Your task to perform on an android device: toggle translation in the chrome app Image 0: 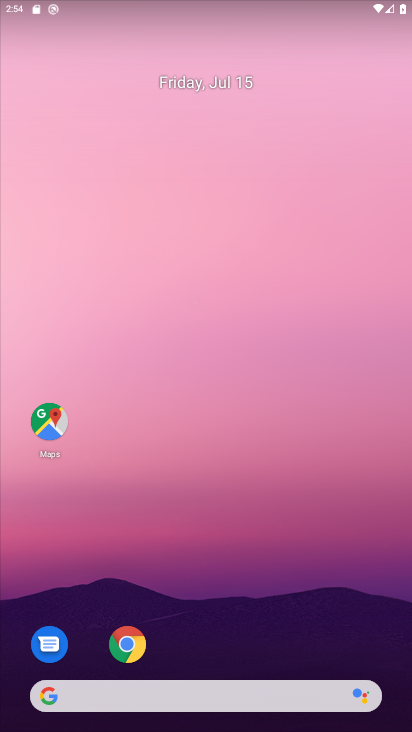
Step 0: drag from (184, 607) to (147, 31)
Your task to perform on an android device: toggle translation in the chrome app Image 1: 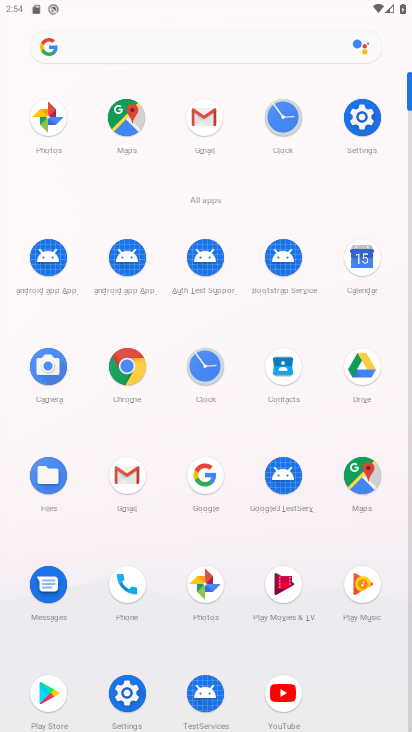
Step 1: click (121, 355)
Your task to perform on an android device: toggle translation in the chrome app Image 2: 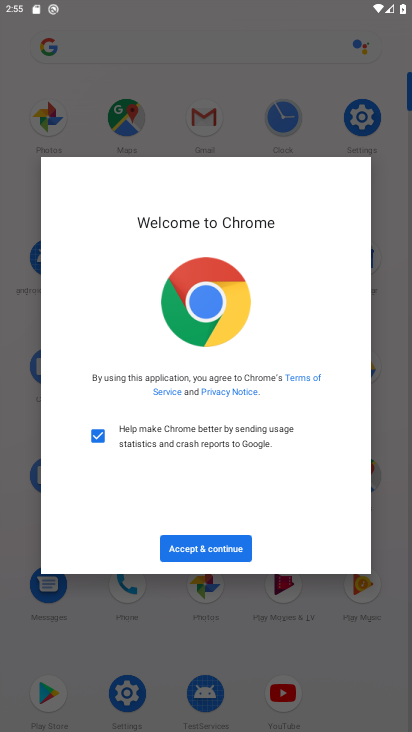
Step 2: click (221, 545)
Your task to perform on an android device: toggle translation in the chrome app Image 3: 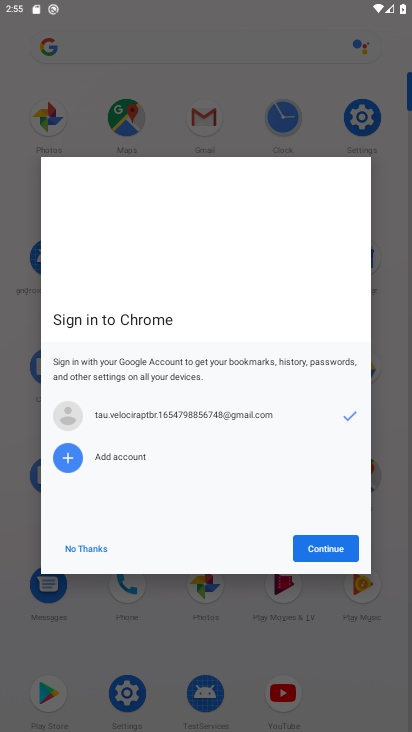
Step 3: click (327, 546)
Your task to perform on an android device: toggle translation in the chrome app Image 4: 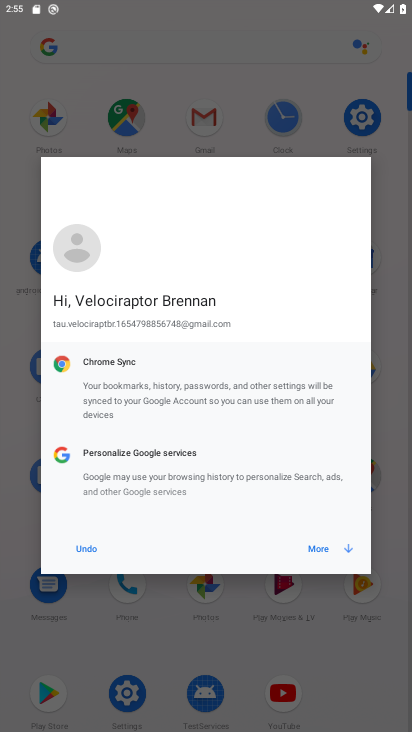
Step 4: click (315, 559)
Your task to perform on an android device: toggle translation in the chrome app Image 5: 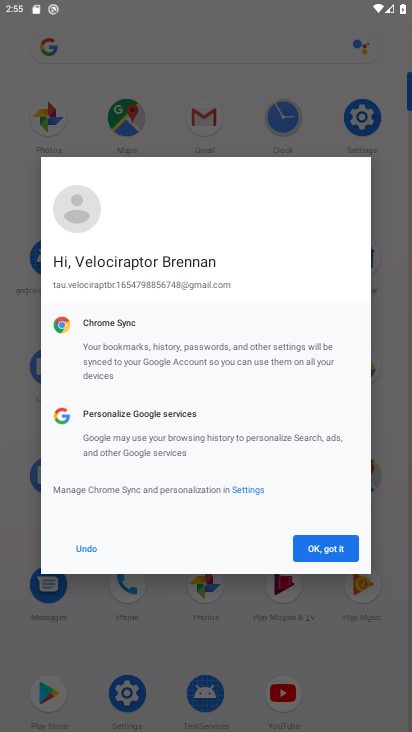
Step 5: click (315, 559)
Your task to perform on an android device: toggle translation in the chrome app Image 6: 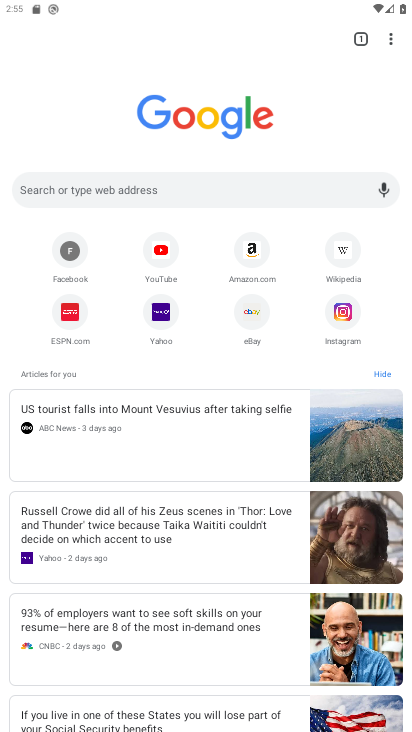
Step 6: click (391, 39)
Your task to perform on an android device: toggle translation in the chrome app Image 7: 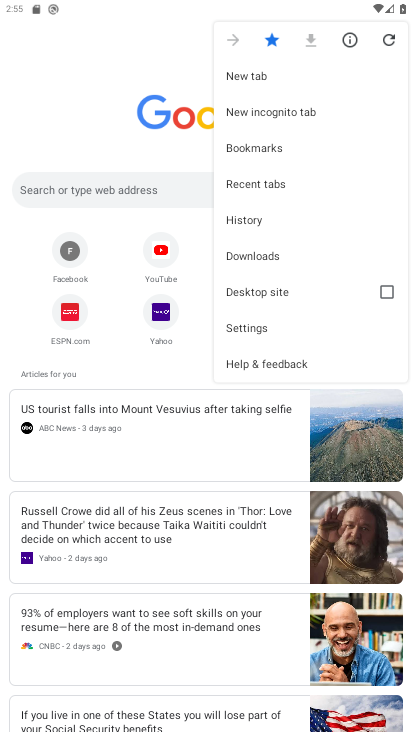
Step 7: click (232, 333)
Your task to perform on an android device: toggle translation in the chrome app Image 8: 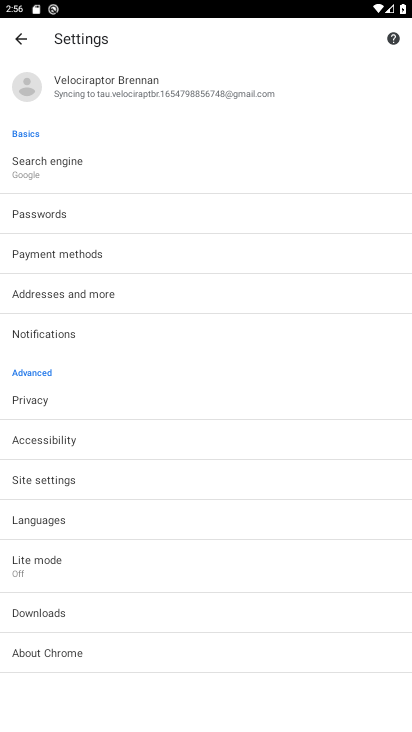
Step 8: click (106, 527)
Your task to perform on an android device: toggle translation in the chrome app Image 9: 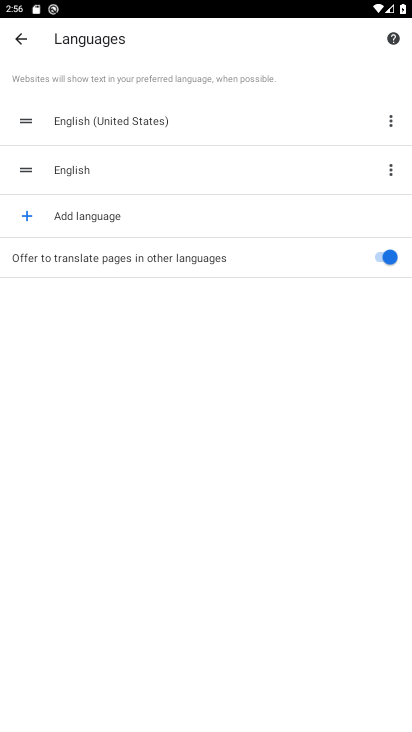
Step 9: click (387, 255)
Your task to perform on an android device: toggle translation in the chrome app Image 10: 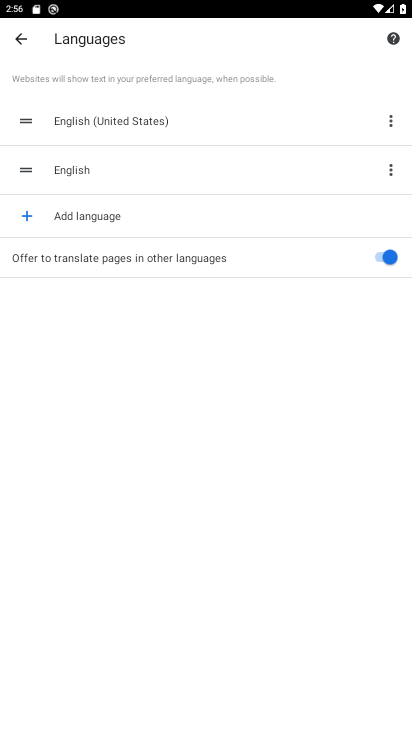
Step 10: click (387, 255)
Your task to perform on an android device: toggle translation in the chrome app Image 11: 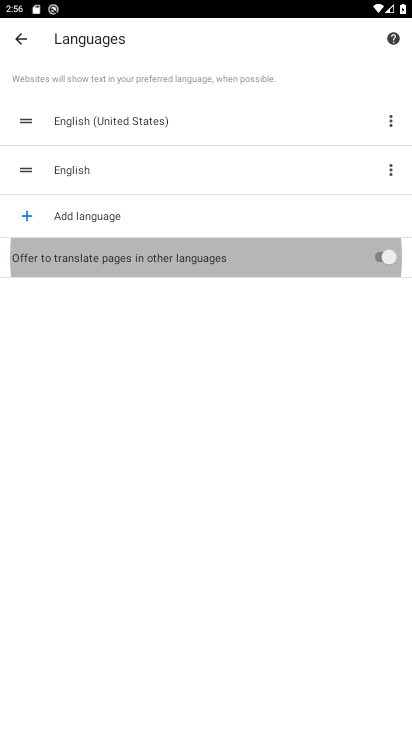
Step 11: click (387, 255)
Your task to perform on an android device: toggle translation in the chrome app Image 12: 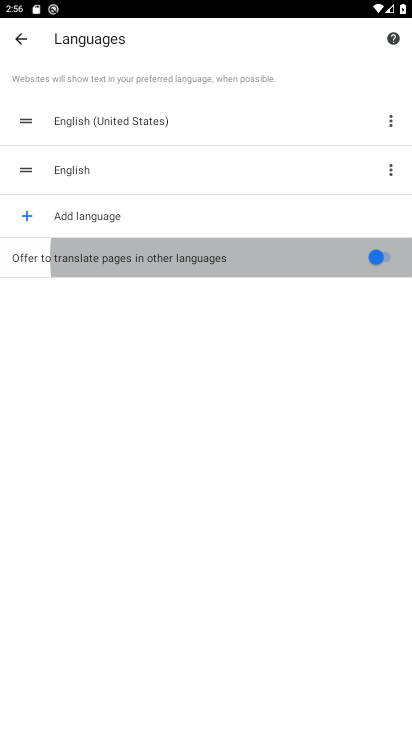
Step 12: click (387, 255)
Your task to perform on an android device: toggle translation in the chrome app Image 13: 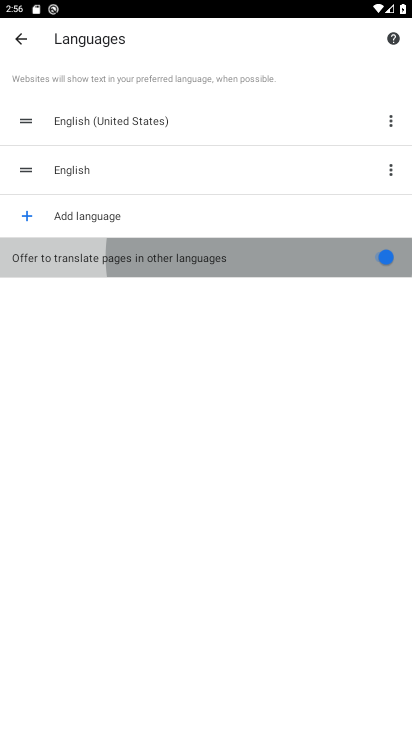
Step 13: click (387, 255)
Your task to perform on an android device: toggle translation in the chrome app Image 14: 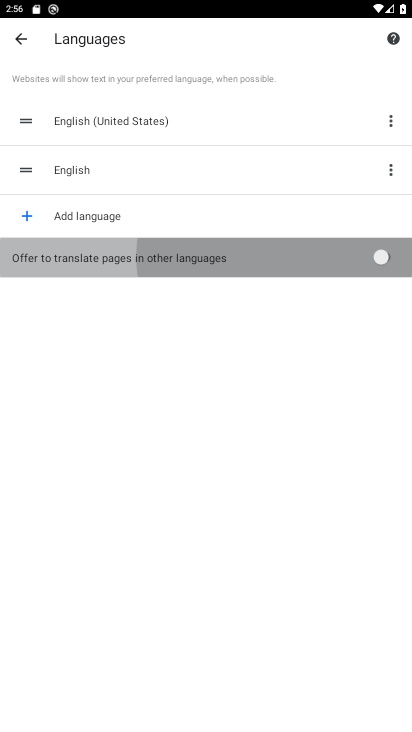
Step 14: click (387, 255)
Your task to perform on an android device: toggle translation in the chrome app Image 15: 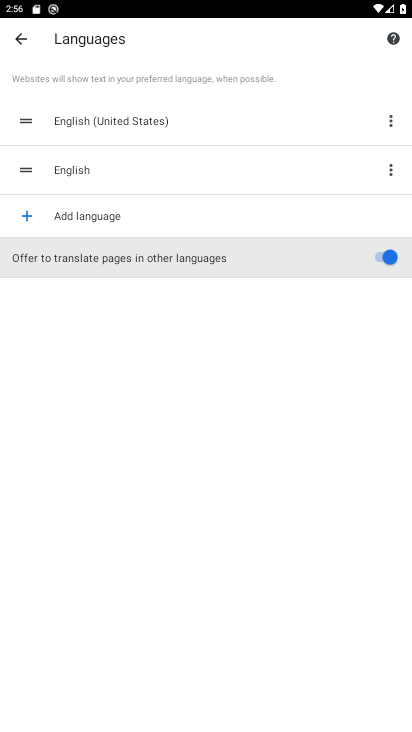
Step 15: click (387, 255)
Your task to perform on an android device: toggle translation in the chrome app Image 16: 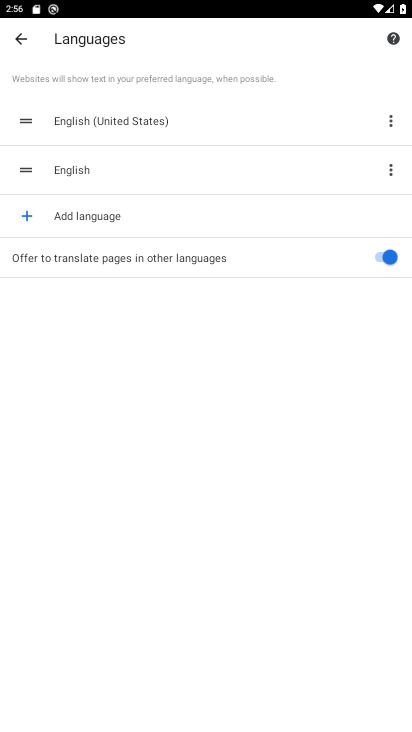
Step 16: task complete